Your task to perform on an android device: Set the phone to "Do not disturb". Image 0: 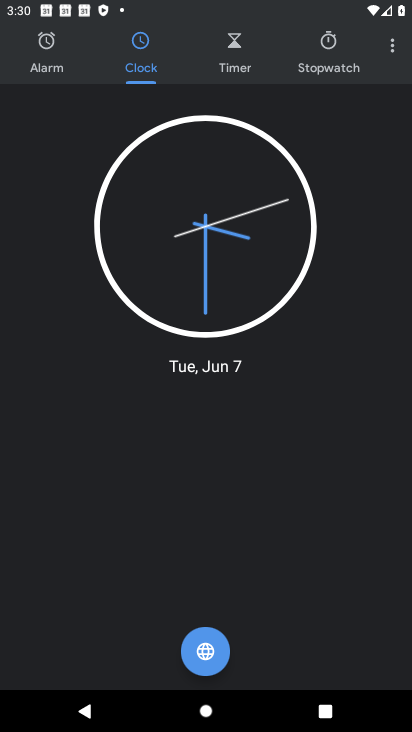
Step 0: press home button
Your task to perform on an android device: Set the phone to "Do not disturb". Image 1: 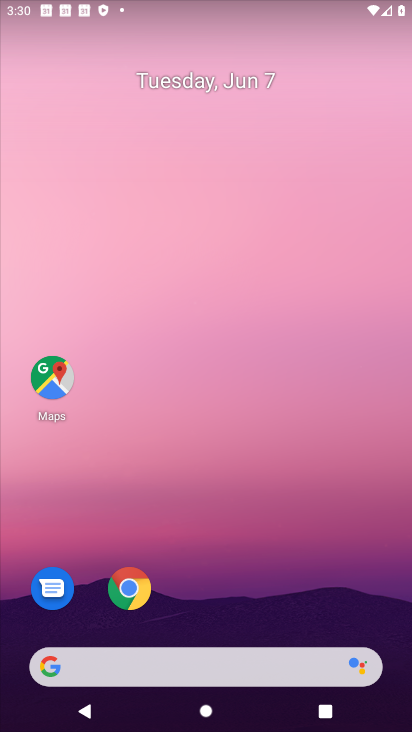
Step 1: task complete